Your task to perform on an android device: change notifications settings Image 0: 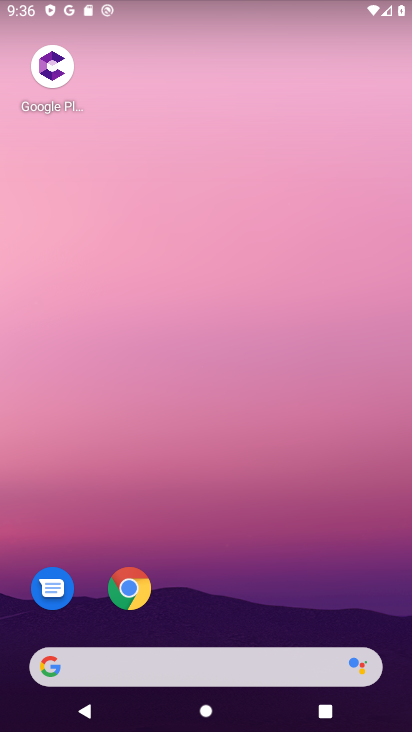
Step 0: drag from (306, 558) to (237, 51)
Your task to perform on an android device: change notifications settings Image 1: 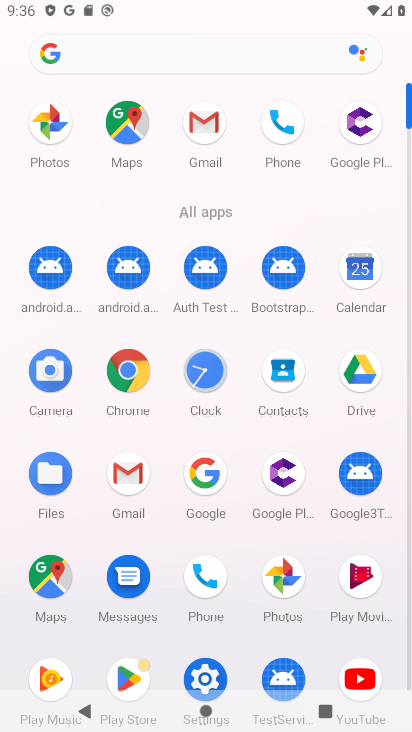
Step 1: click (204, 670)
Your task to perform on an android device: change notifications settings Image 2: 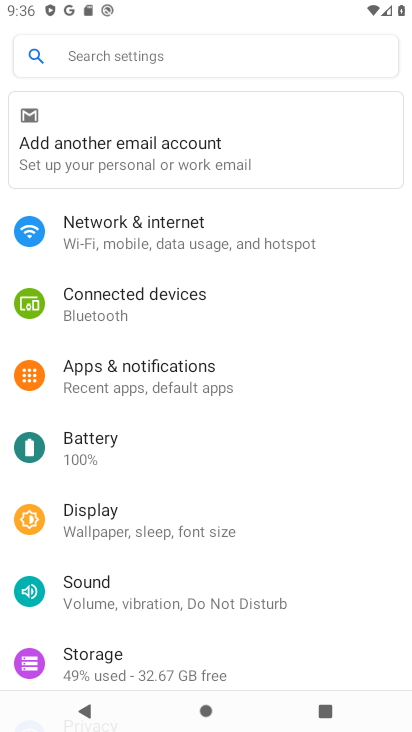
Step 2: click (183, 381)
Your task to perform on an android device: change notifications settings Image 3: 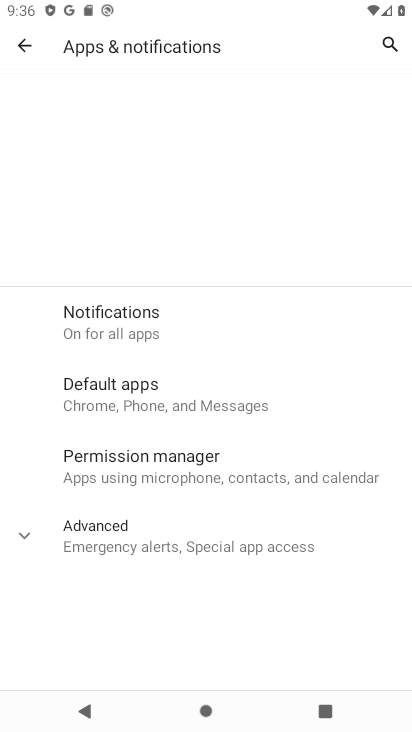
Step 3: click (211, 317)
Your task to perform on an android device: change notifications settings Image 4: 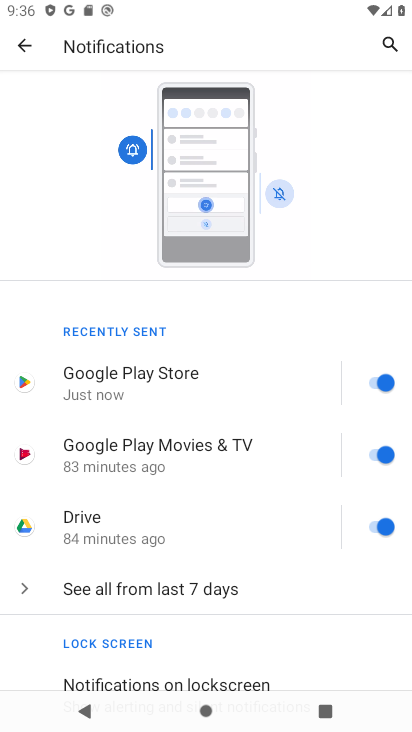
Step 4: drag from (341, 602) to (102, 57)
Your task to perform on an android device: change notifications settings Image 5: 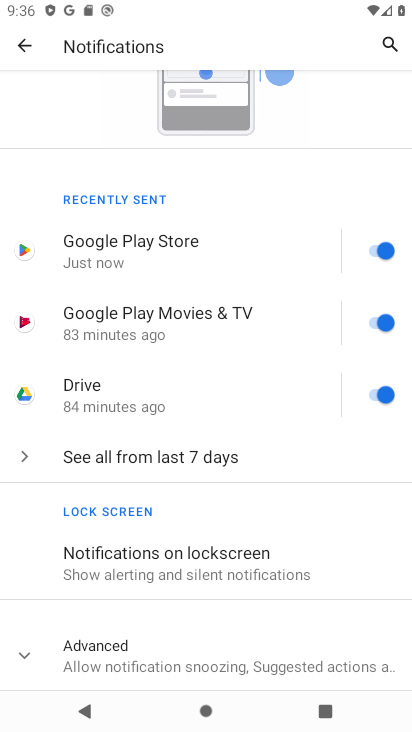
Step 5: click (304, 617)
Your task to perform on an android device: change notifications settings Image 6: 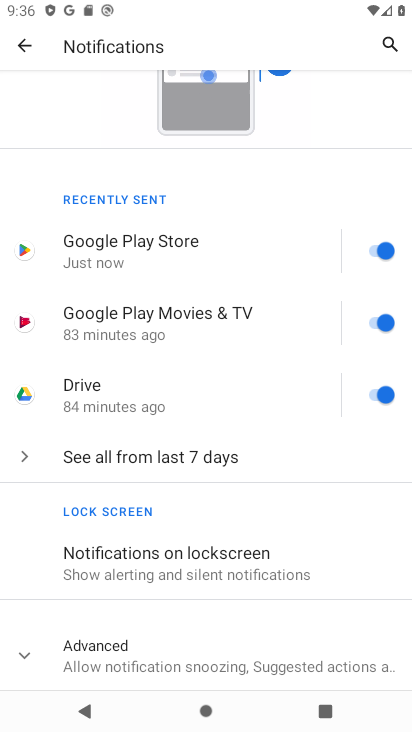
Step 6: click (241, 655)
Your task to perform on an android device: change notifications settings Image 7: 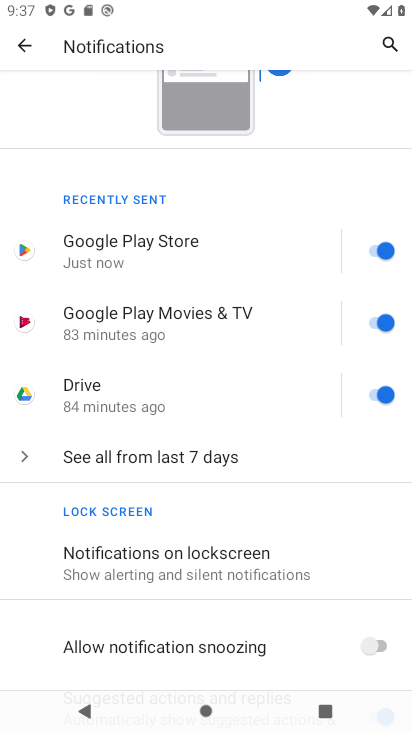
Step 7: click (364, 651)
Your task to perform on an android device: change notifications settings Image 8: 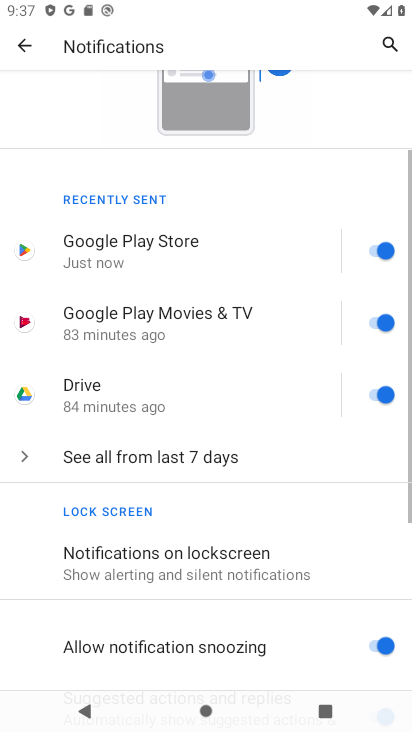
Step 8: click (321, 614)
Your task to perform on an android device: change notifications settings Image 9: 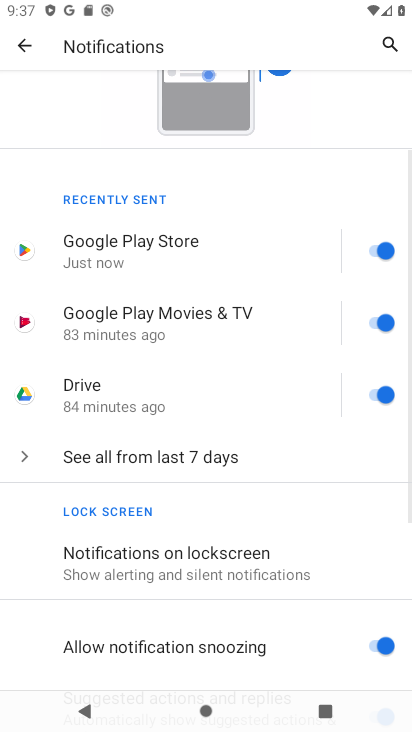
Step 9: drag from (321, 614) to (174, 128)
Your task to perform on an android device: change notifications settings Image 10: 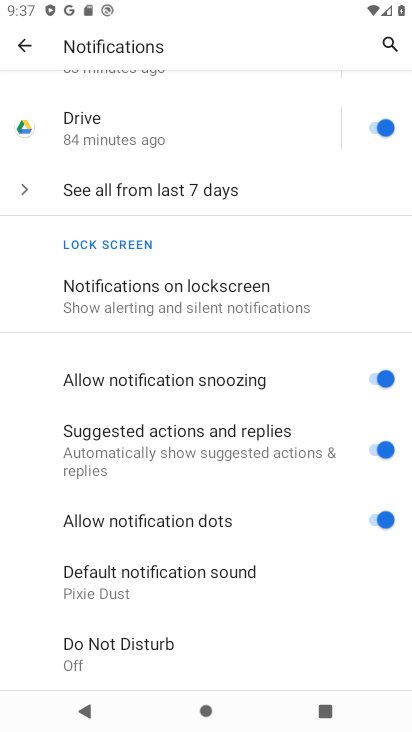
Step 10: click (384, 437)
Your task to perform on an android device: change notifications settings Image 11: 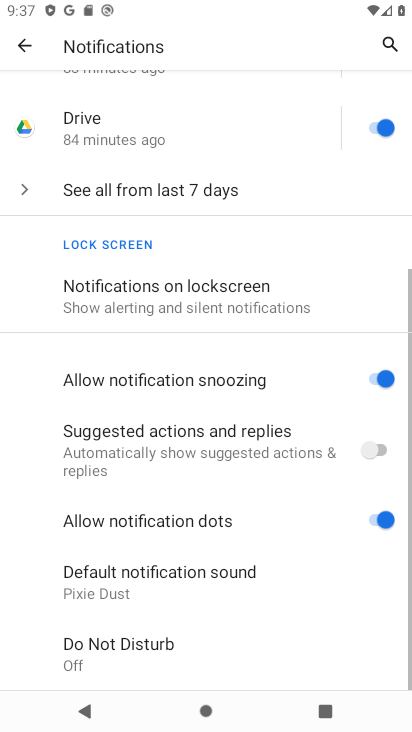
Step 11: task complete